Your task to perform on an android device: turn vacation reply on in the gmail app Image 0: 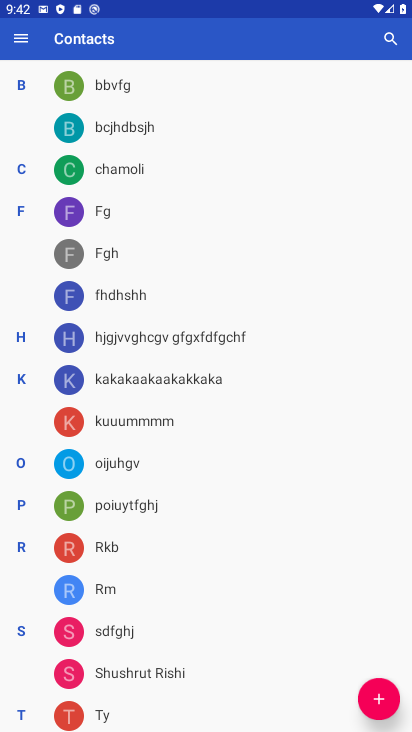
Step 0: press home button
Your task to perform on an android device: turn vacation reply on in the gmail app Image 1: 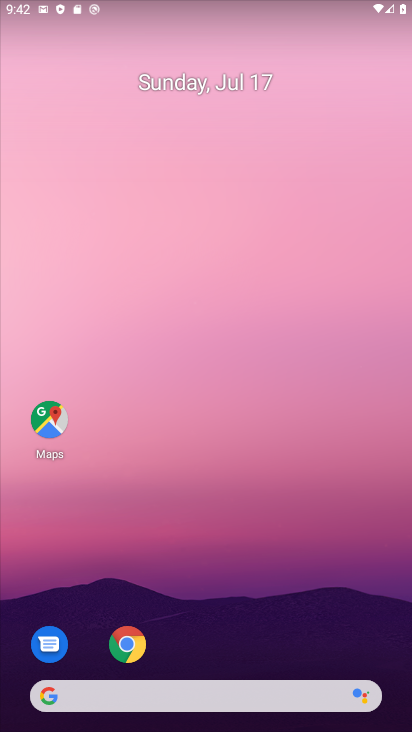
Step 1: drag from (279, 657) to (222, 18)
Your task to perform on an android device: turn vacation reply on in the gmail app Image 2: 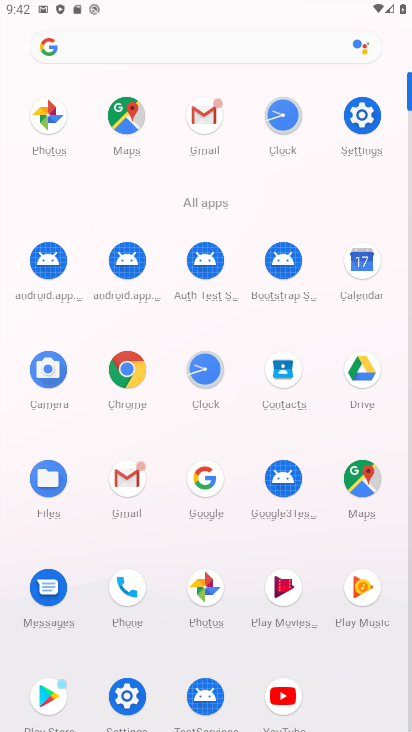
Step 2: click (209, 119)
Your task to perform on an android device: turn vacation reply on in the gmail app Image 3: 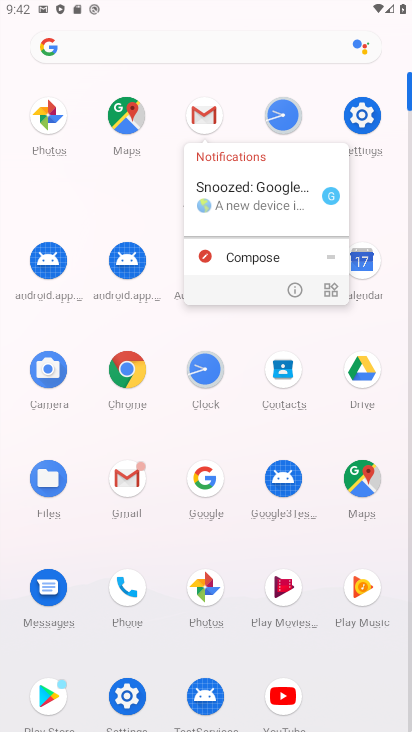
Step 3: click (207, 119)
Your task to perform on an android device: turn vacation reply on in the gmail app Image 4: 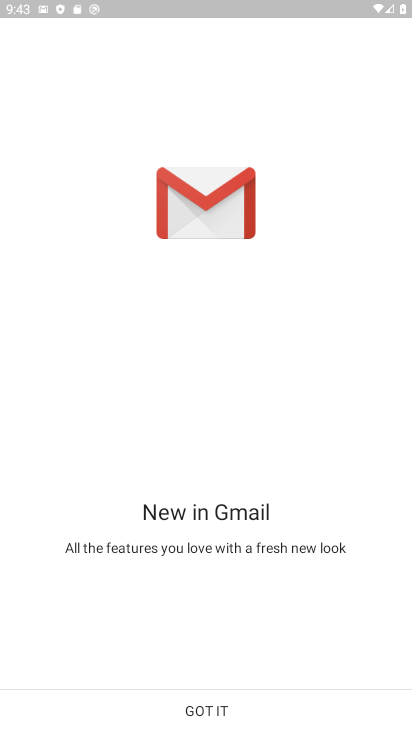
Step 4: click (198, 710)
Your task to perform on an android device: turn vacation reply on in the gmail app Image 5: 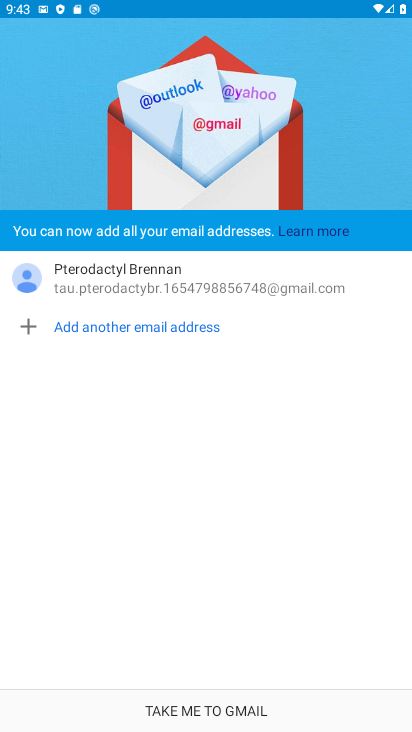
Step 5: click (198, 710)
Your task to perform on an android device: turn vacation reply on in the gmail app Image 6: 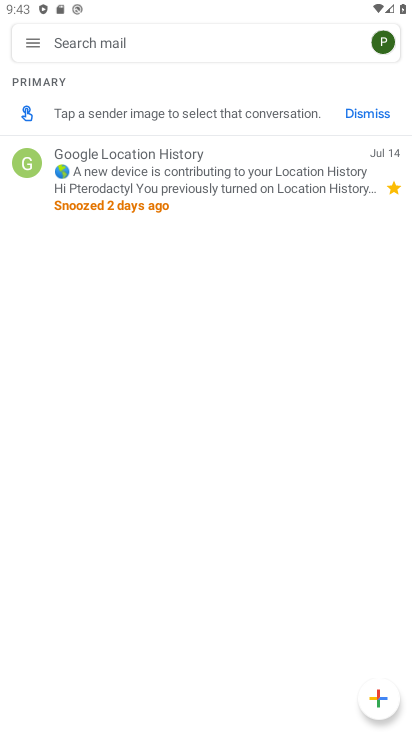
Step 6: click (31, 46)
Your task to perform on an android device: turn vacation reply on in the gmail app Image 7: 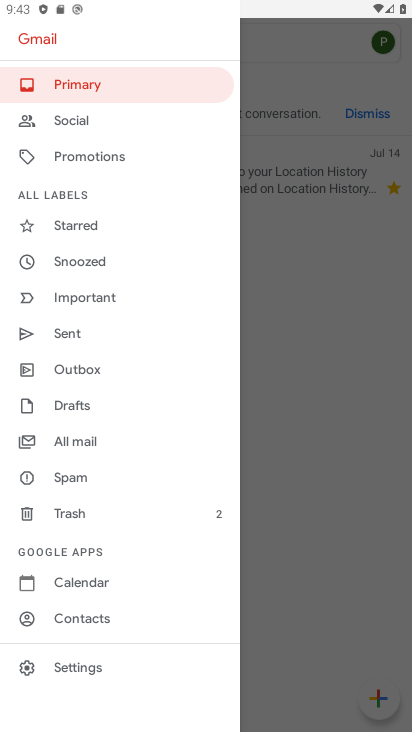
Step 7: click (91, 668)
Your task to perform on an android device: turn vacation reply on in the gmail app Image 8: 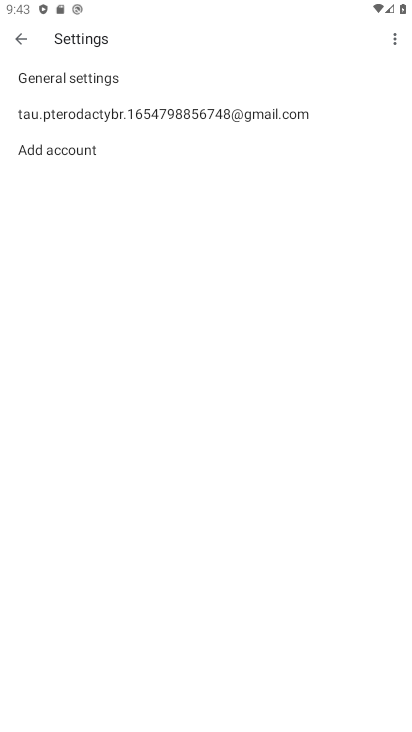
Step 8: click (70, 112)
Your task to perform on an android device: turn vacation reply on in the gmail app Image 9: 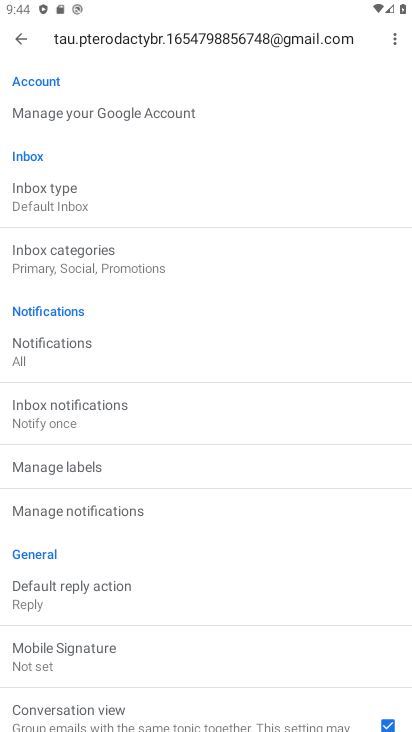
Step 9: drag from (122, 646) to (205, 111)
Your task to perform on an android device: turn vacation reply on in the gmail app Image 10: 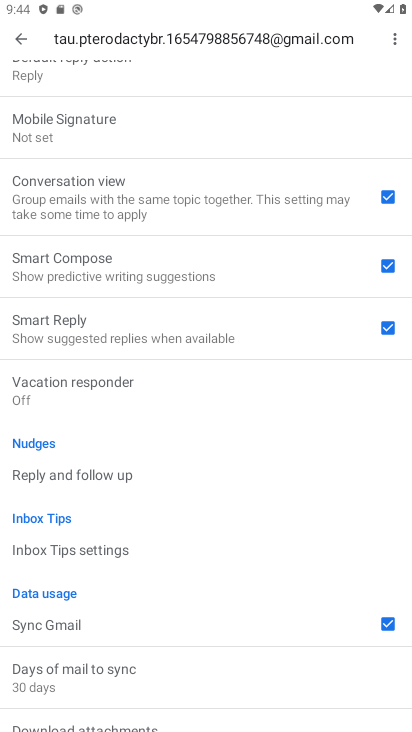
Step 10: click (107, 388)
Your task to perform on an android device: turn vacation reply on in the gmail app Image 11: 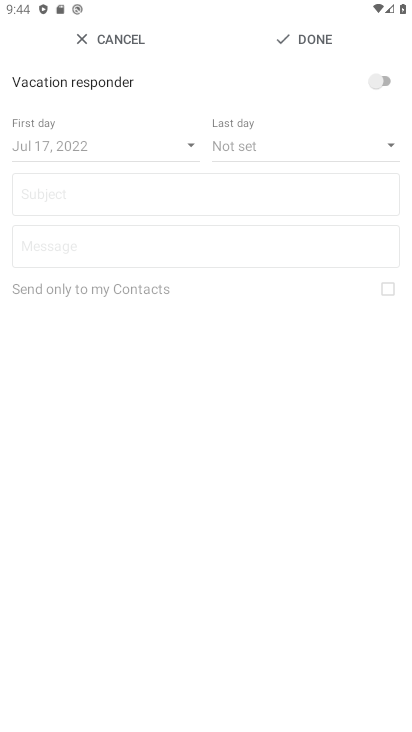
Step 11: click (380, 77)
Your task to perform on an android device: turn vacation reply on in the gmail app Image 12: 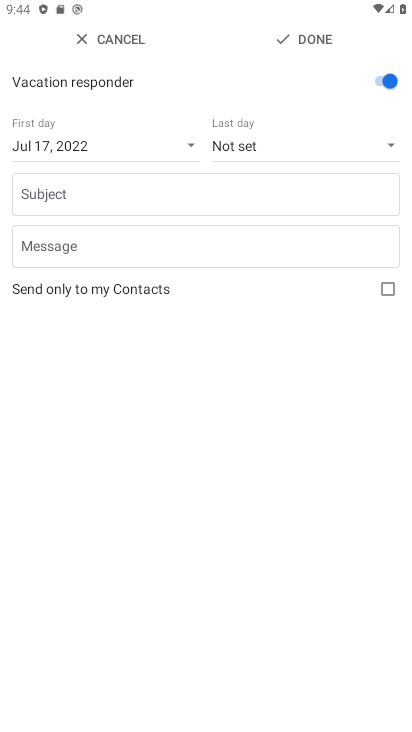
Step 12: task complete